Your task to perform on an android device: Go to notification settings Image 0: 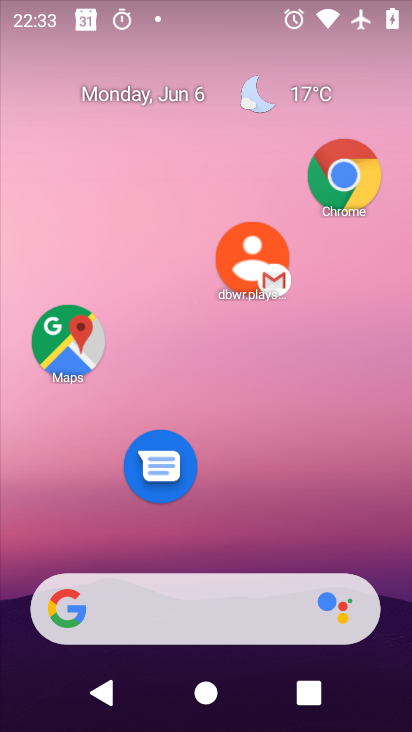
Step 0: click (153, 21)
Your task to perform on an android device: Go to notification settings Image 1: 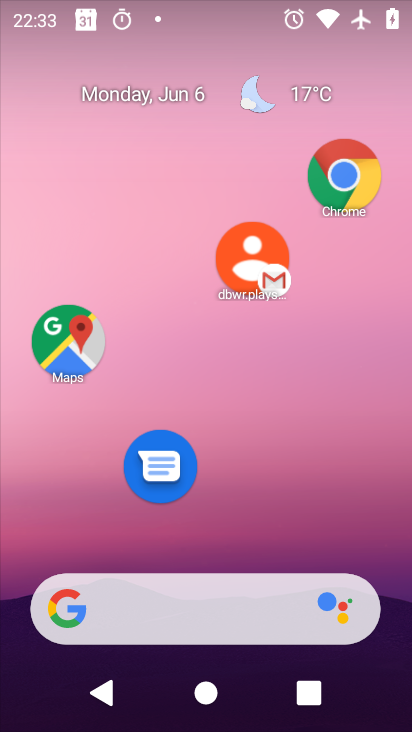
Step 1: drag from (228, 489) to (198, 182)
Your task to perform on an android device: Go to notification settings Image 2: 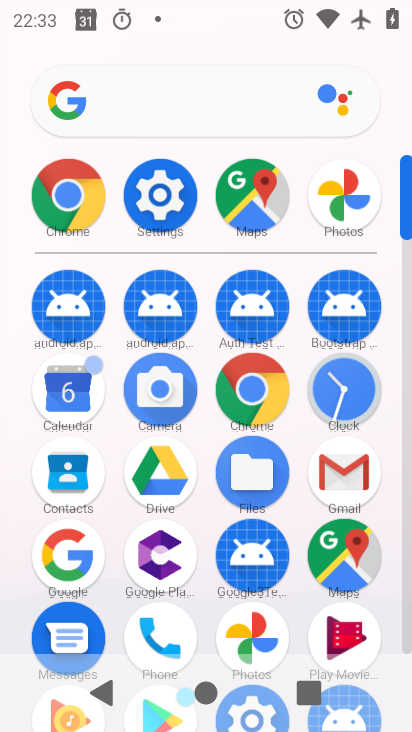
Step 2: click (165, 205)
Your task to perform on an android device: Go to notification settings Image 3: 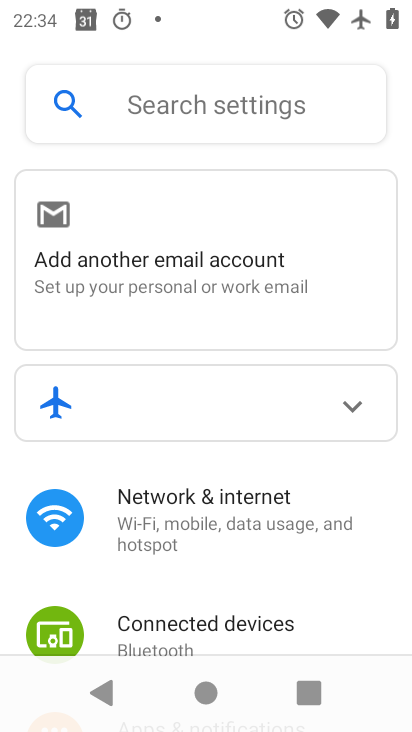
Step 3: drag from (184, 602) to (267, 141)
Your task to perform on an android device: Go to notification settings Image 4: 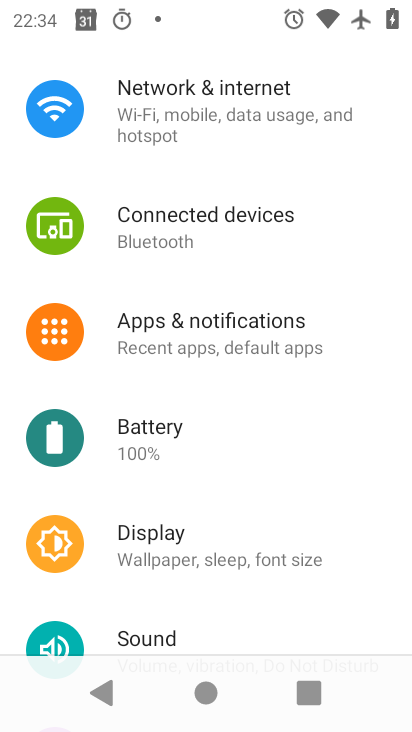
Step 4: click (220, 331)
Your task to perform on an android device: Go to notification settings Image 5: 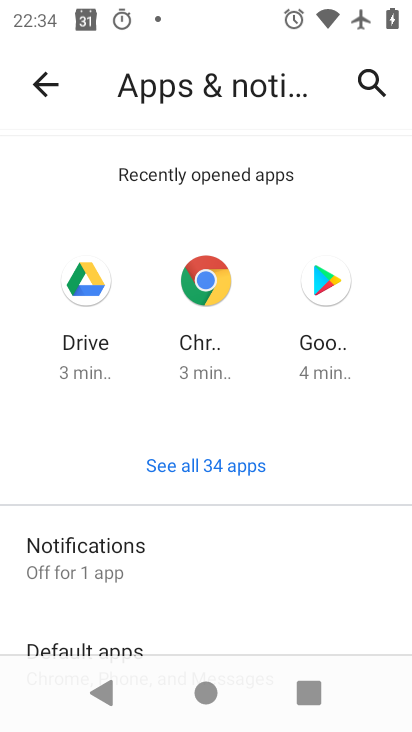
Step 5: drag from (208, 593) to (306, 205)
Your task to perform on an android device: Go to notification settings Image 6: 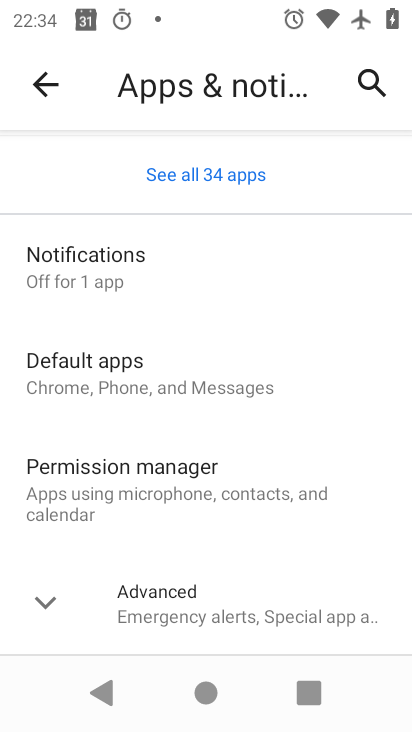
Step 6: click (163, 253)
Your task to perform on an android device: Go to notification settings Image 7: 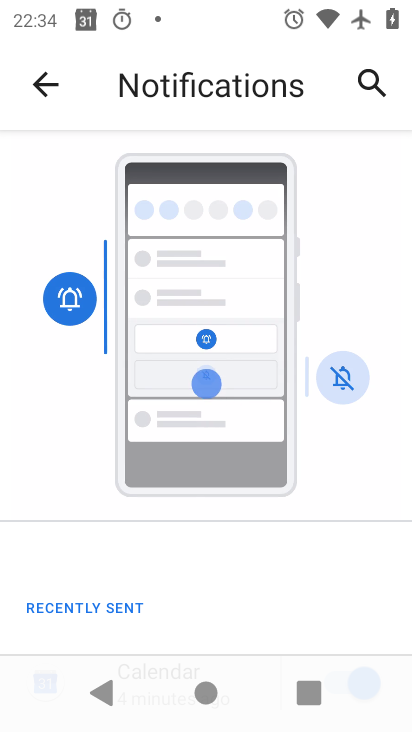
Step 7: drag from (212, 623) to (245, 309)
Your task to perform on an android device: Go to notification settings Image 8: 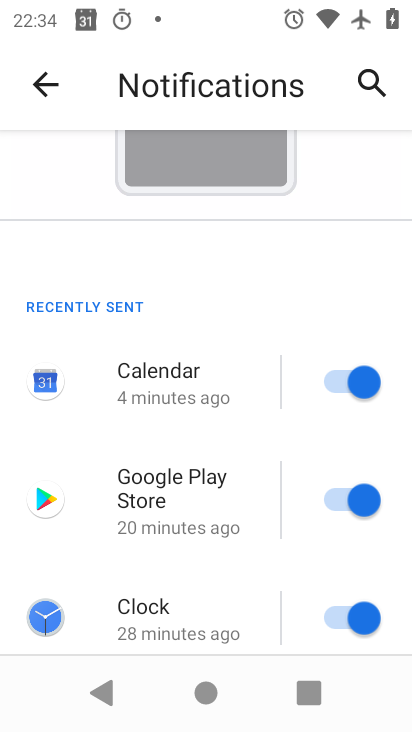
Step 8: drag from (206, 537) to (217, 209)
Your task to perform on an android device: Go to notification settings Image 9: 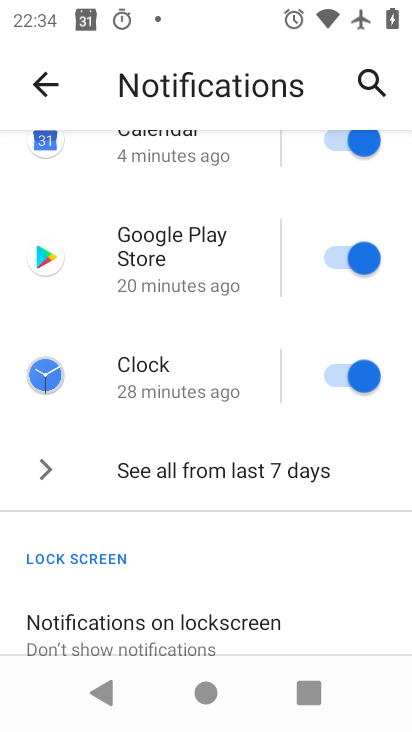
Step 9: drag from (203, 568) to (231, 112)
Your task to perform on an android device: Go to notification settings Image 10: 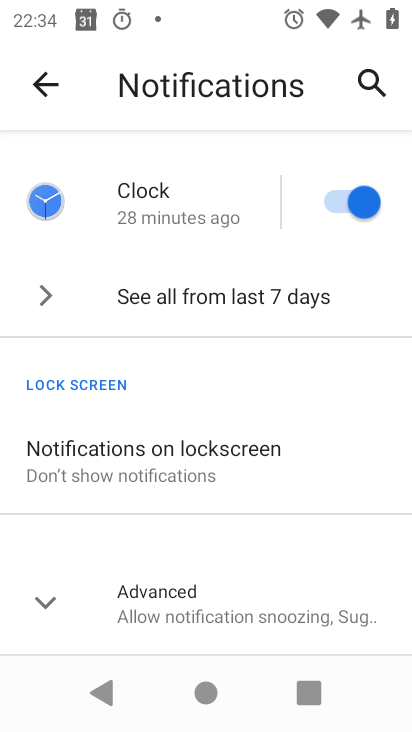
Step 10: click (170, 639)
Your task to perform on an android device: Go to notification settings Image 11: 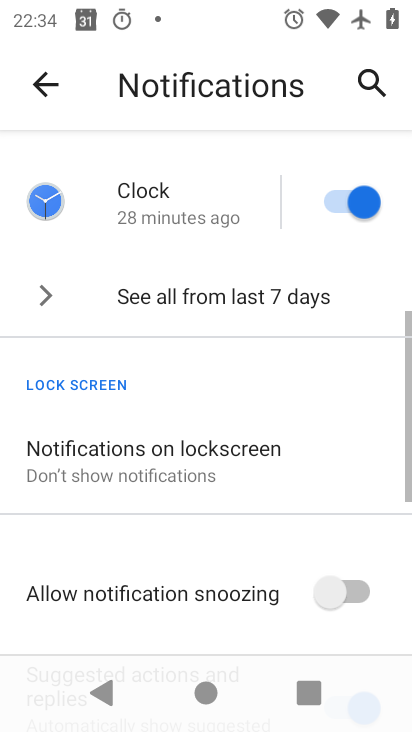
Step 11: task complete